Your task to perform on an android device: set default search engine in the chrome app Image 0: 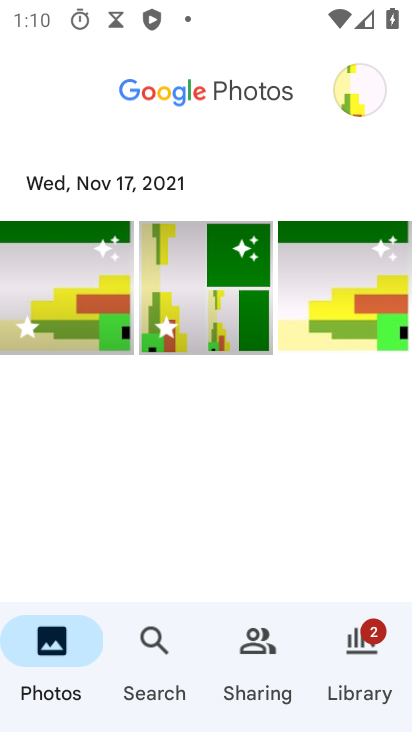
Step 0: press home button
Your task to perform on an android device: set default search engine in the chrome app Image 1: 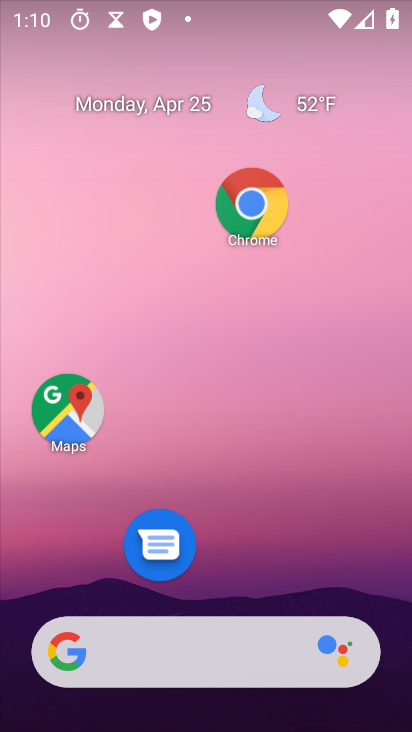
Step 1: drag from (326, 685) to (338, 209)
Your task to perform on an android device: set default search engine in the chrome app Image 2: 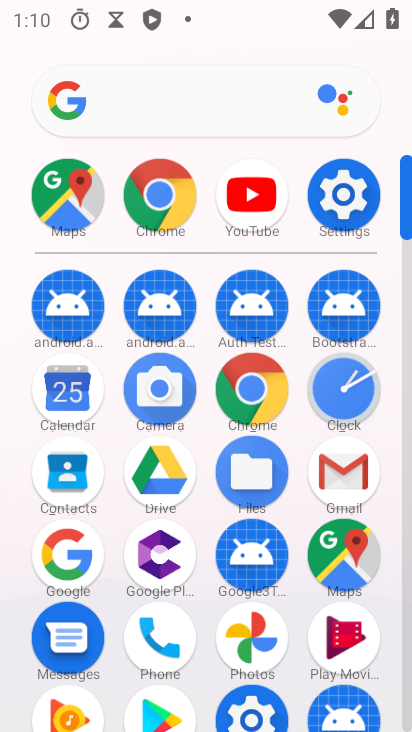
Step 2: click (174, 210)
Your task to perform on an android device: set default search engine in the chrome app Image 3: 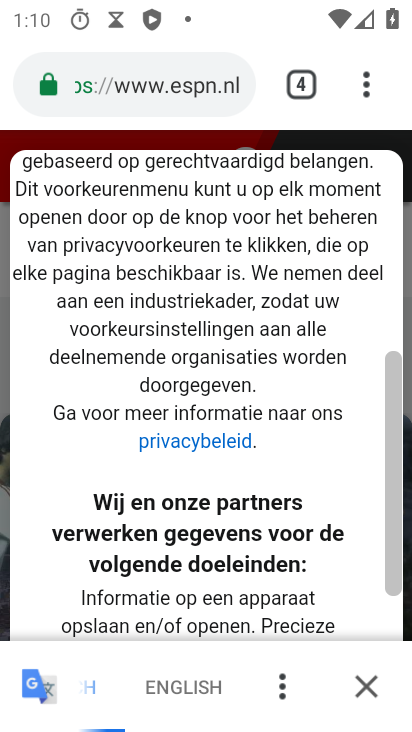
Step 3: click (365, 103)
Your task to perform on an android device: set default search engine in the chrome app Image 4: 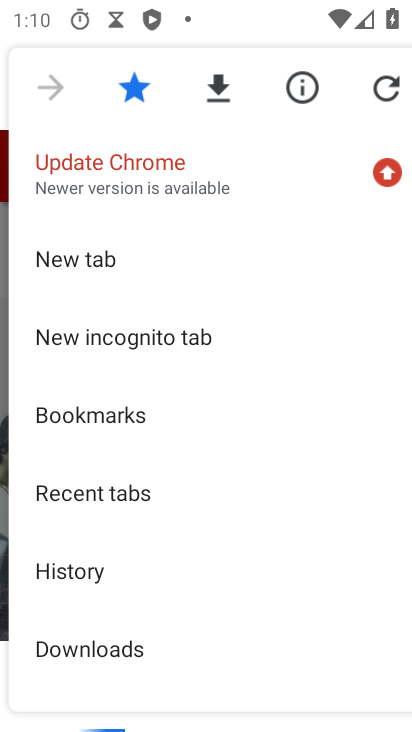
Step 4: drag from (150, 622) to (182, 423)
Your task to perform on an android device: set default search engine in the chrome app Image 5: 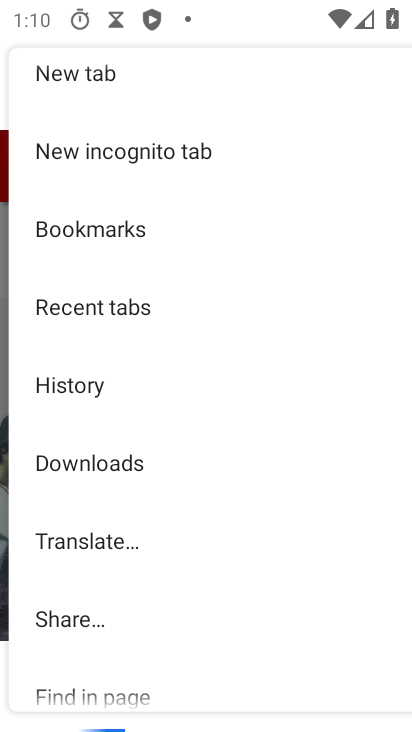
Step 5: drag from (139, 596) to (140, 427)
Your task to perform on an android device: set default search engine in the chrome app Image 6: 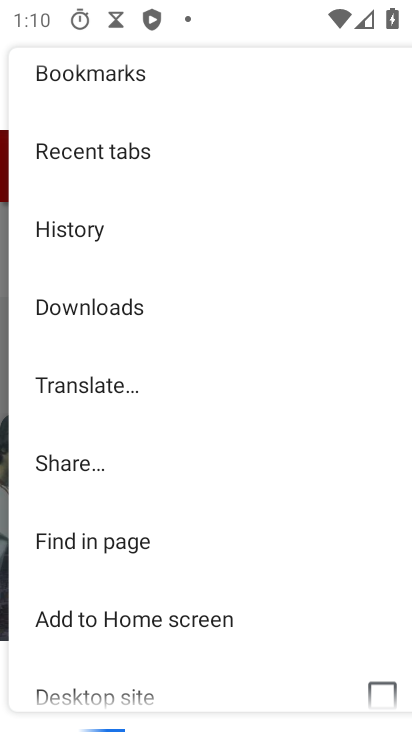
Step 6: drag from (126, 646) to (206, 445)
Your task to perform on an android device: set default search engine in the chrome app Image 7: 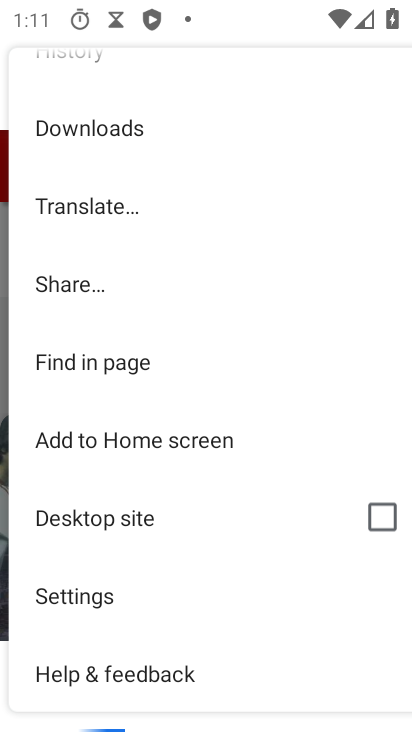
Step 7: click (107, 596)
Your task to perform on an android device: set default search engine in the chrome app Image 8: 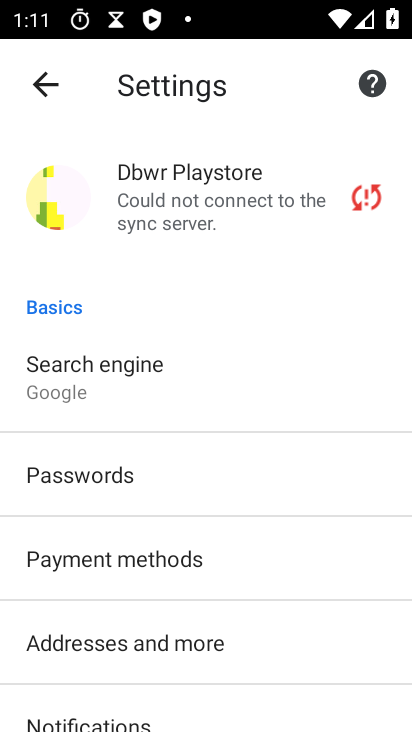
Step 8: drag from (131, 560) to (177, 545)
Your task to perform on an android device: set default search engine in the chrome app Image 9: 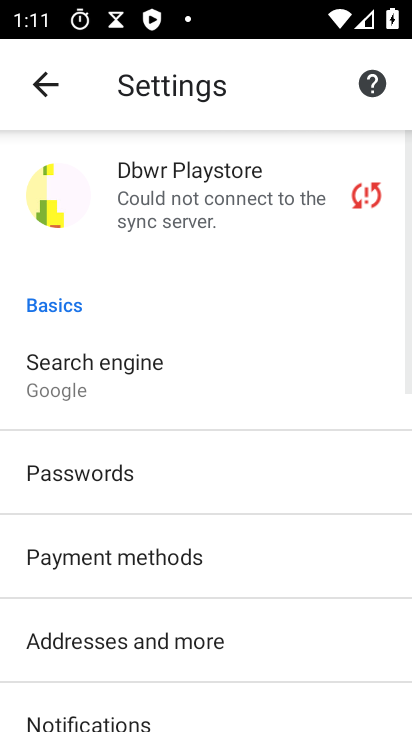
Step 9: click (165, 371)
Your task to perform on an android device: set default search engine in the chrome app Image 10: 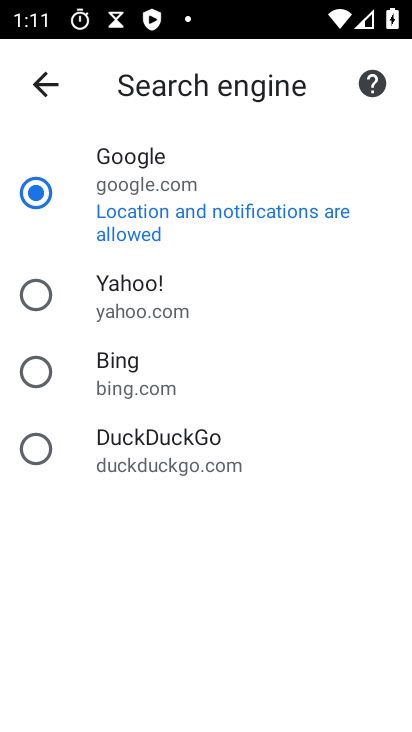
Step 10: task complete